Your task to perform on an android device: What's the weather going to be this weekend? Image 0: 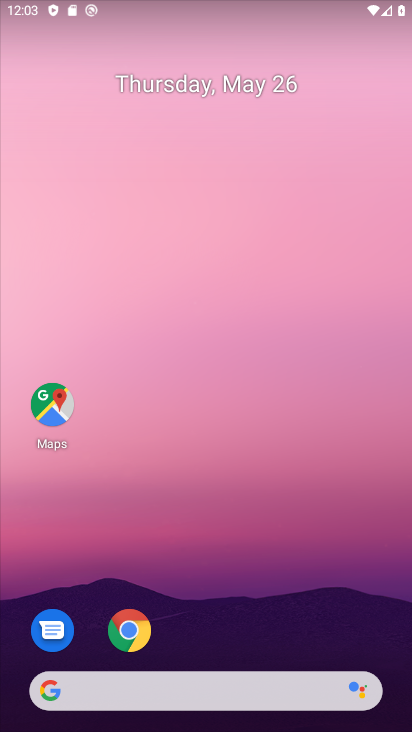
Step 0: drag from (12, 513) to (408, 477)
Your task to perform on an android device: What's the weather going to be this weekend? Image 1: 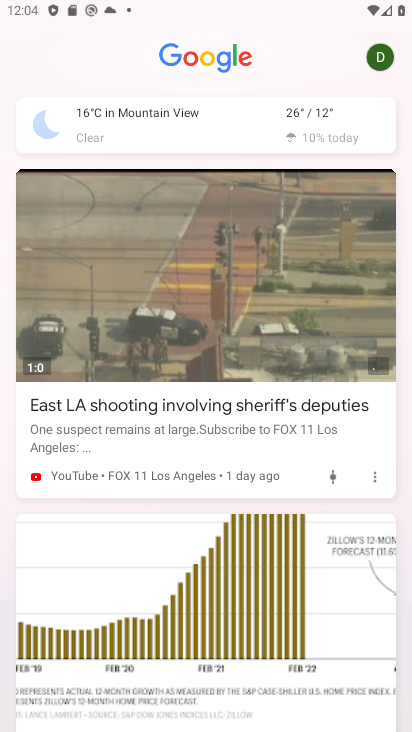
Step 1: click (337, 133)
Your task to perform on an android device: What's the weather going to be this weekend? Image 2: 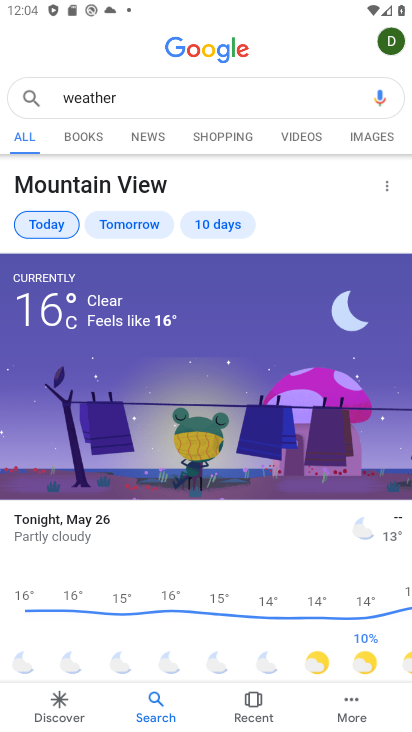
Step 2: click (225, 244)
Your task to perform on an android device: What's the weather going to be this weekend? Image 3: 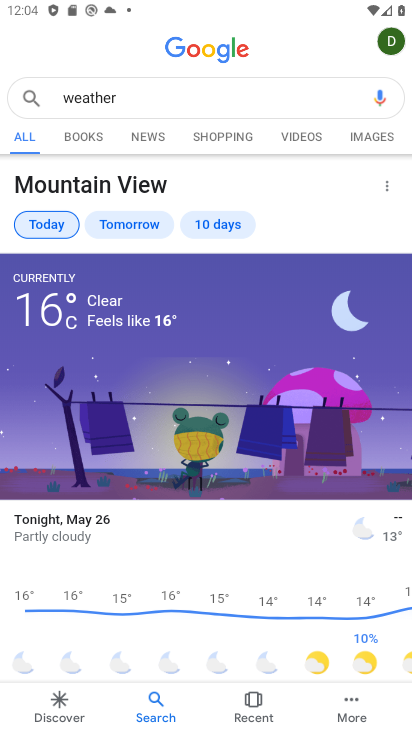
Step 3: drag from (153, 616) to (350, 109)
Your task to perform on an android device: What's the weather going to be this weekend? Image 4: 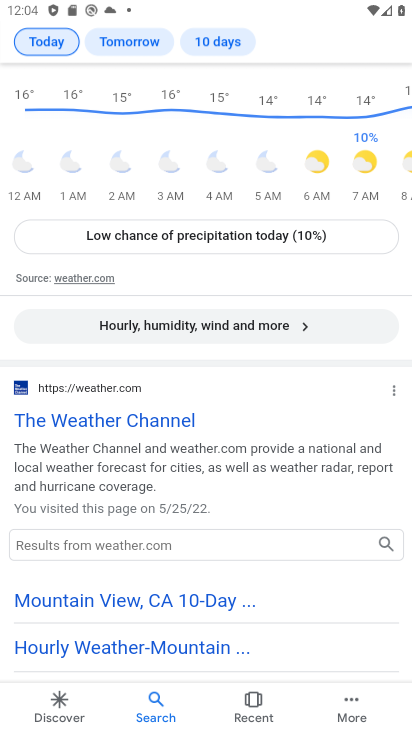
Step 4: click (114, 421)
Your task to perform on an android device: What's the weather going to be this weekend? Image 5: 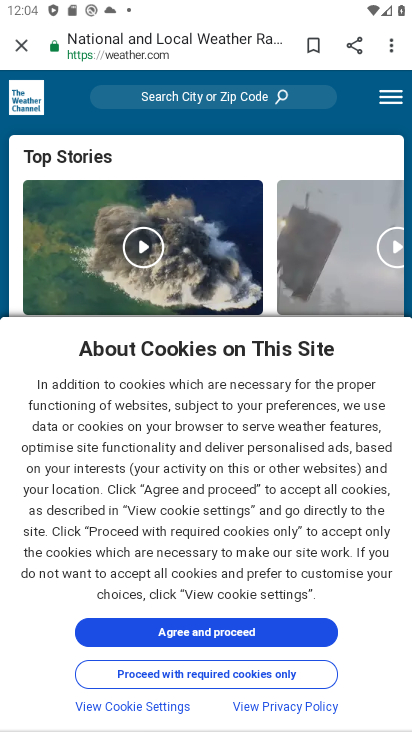
Step 5: click (268, 632)
Your task to perform on an android device: What's the weather going to be this weekend? Image 6: 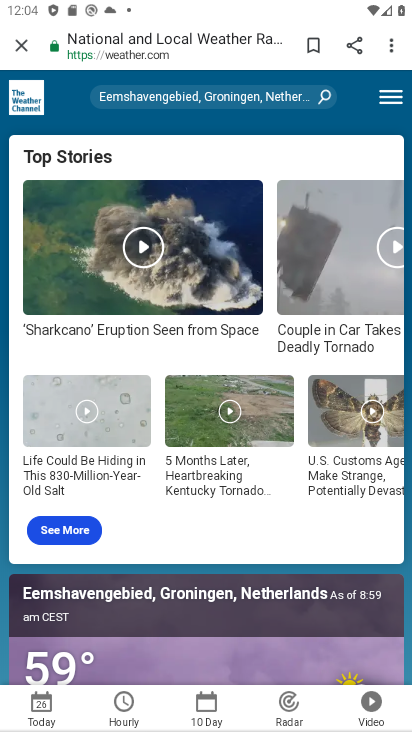
Step 6: click (207, 711)
Your task to perform on an android device: What's the weather going to be this weekend? Image 7: 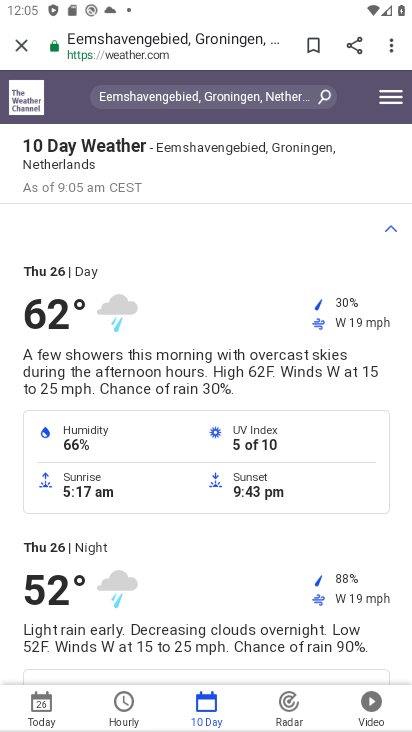
Step 7: task complete